Your task to perform on an android device: Open Android settings Image 0: 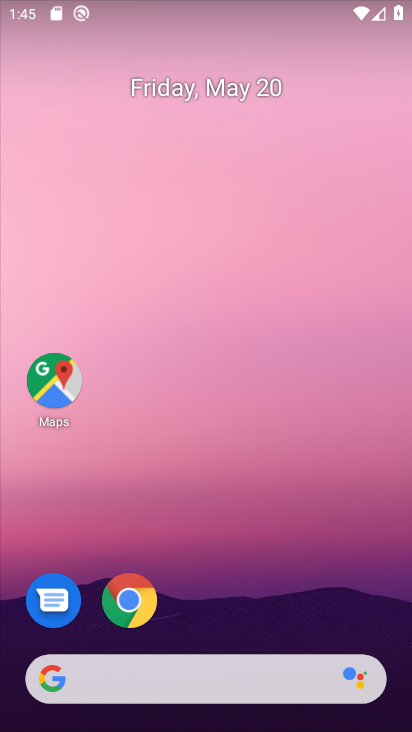
Step 0: drag from (235, 587) to (342, 90)
Your task to perform on an android device: Open Android settings Image 1: 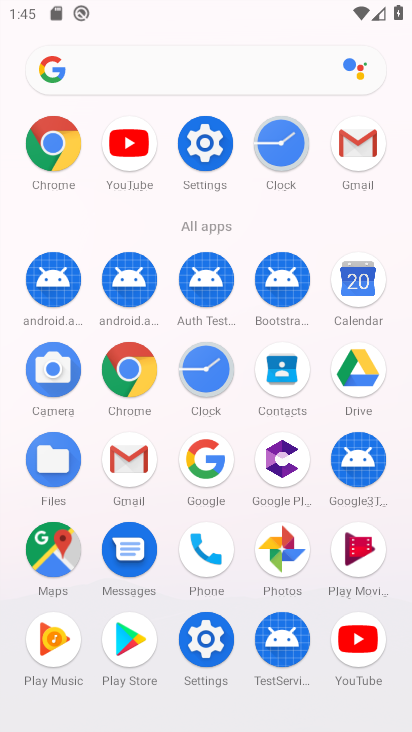
Step 1: click (214, 645)
Your task to perform on an android device: Open Android settings Image 2: 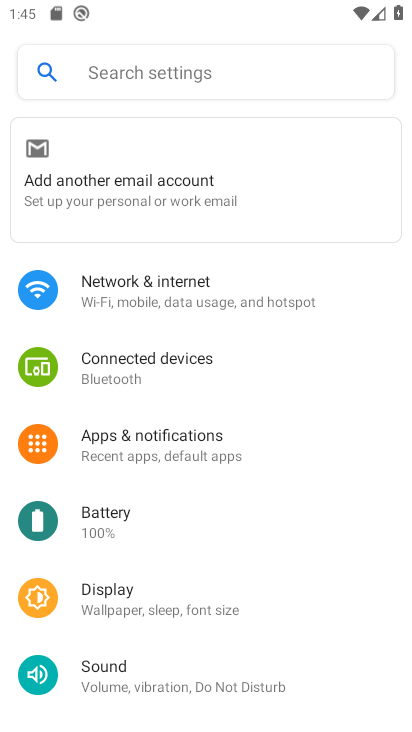
Step 2: drag from (224, 630) to (283, 224)
Your task to perform on an android device: Open Android settings Image 3: 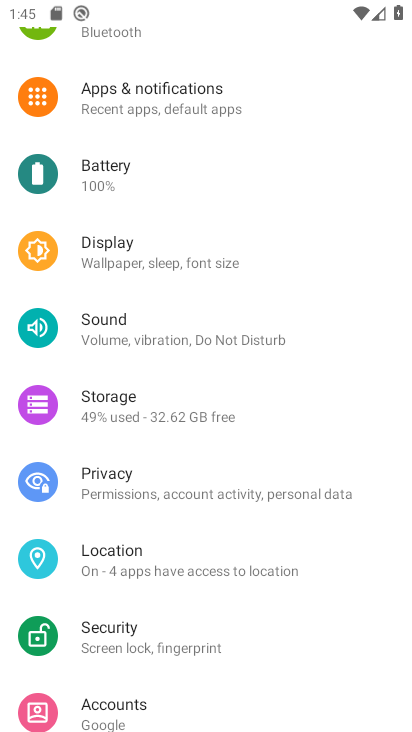
Step 3: drag from (190, 591) to (255, 218)
Your task to perform on an android device: Open Android settings Image 4: 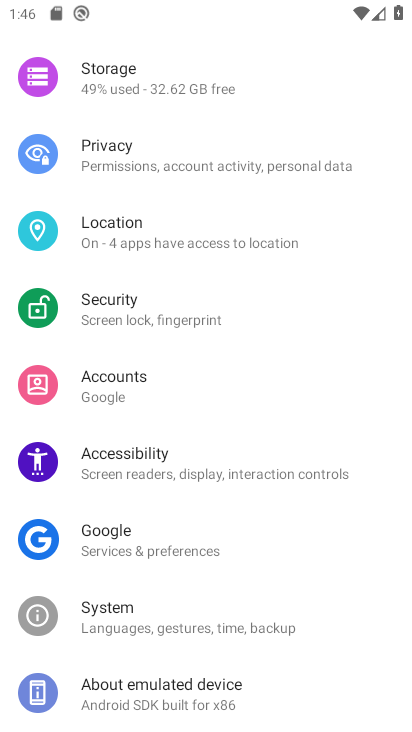
Step 4: drag from (179, 532) to (220, 242)
Your task to perform on an android device: Open Android settings Image 5: 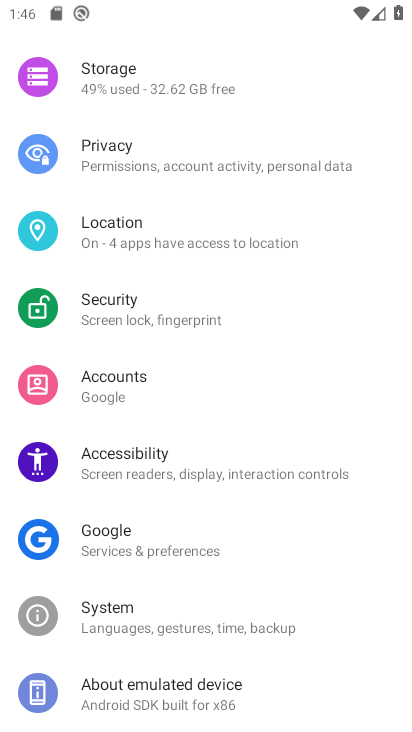
Step 5: click (156, 701)
Your task to perform on an android device: Open Android settings Image 6: 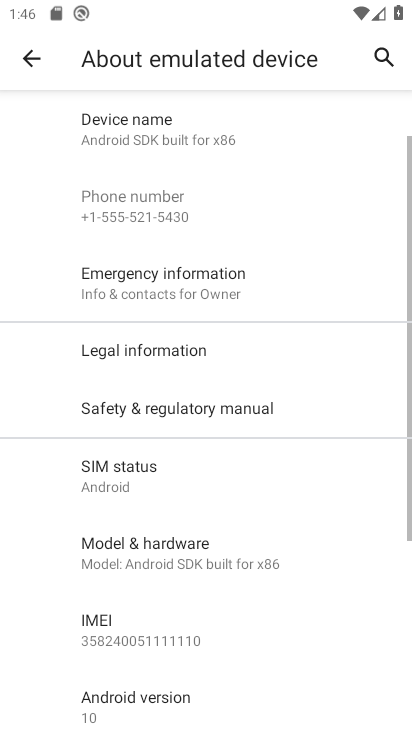
Step 6: drag from (209, 589) to (240, 355)
Your task to perform on an android device: Open Android settings Image 7: 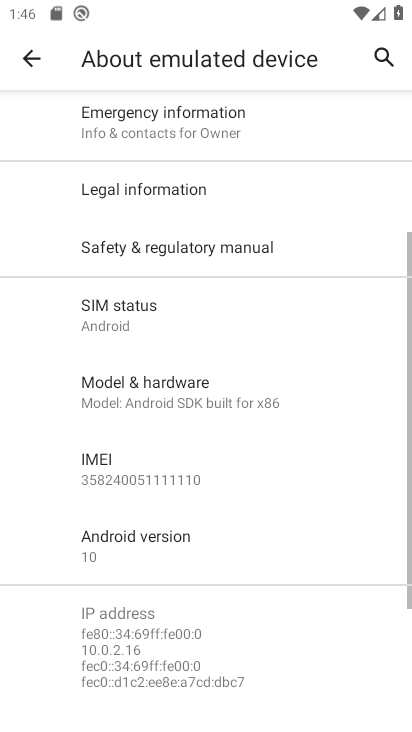
Step 7: click (171, 556)
Your task to perform on an android device: Open Android settings Image 8: 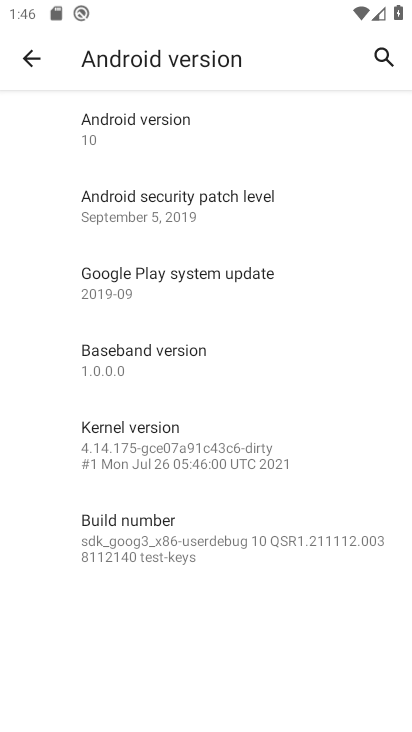
Step 8: task complete